Your task to perform on an android device: manage bookmarks in the chrome app Image 0: 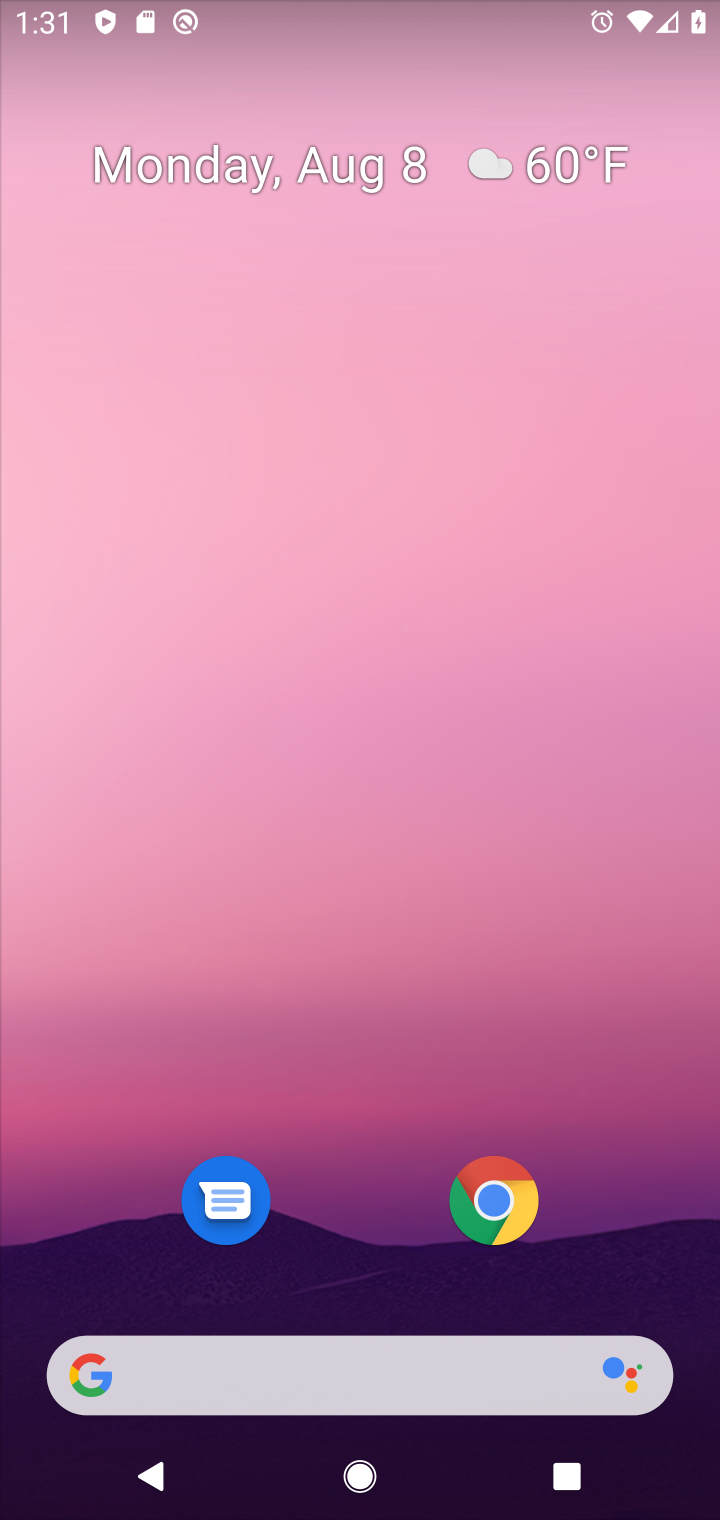
Step 0: press home button
Your task to perform on an android device: manage bookmarks in the chrome app Image 1: 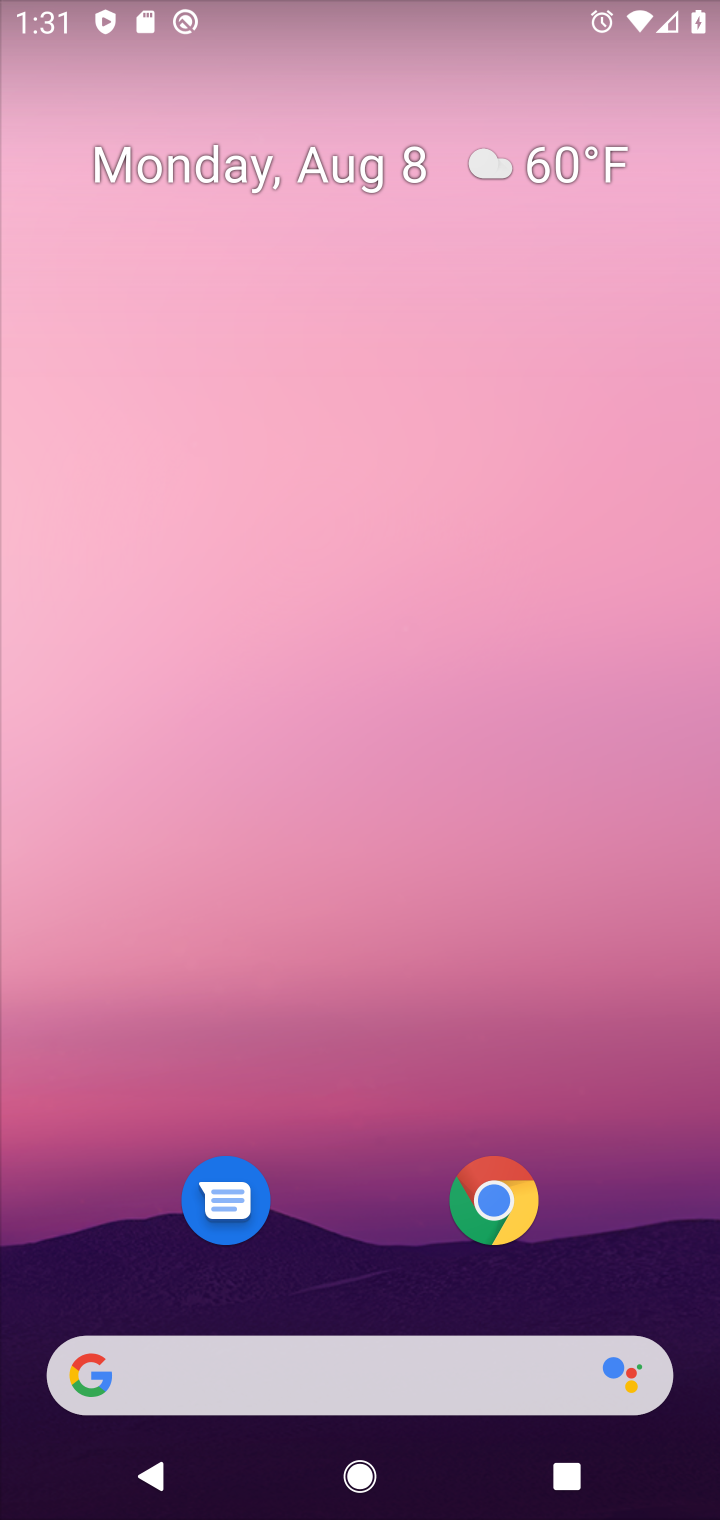
Step 1: click (499, 1192)
Your task to perform on an android device: manage bookmarks in the chrome app Image 2: 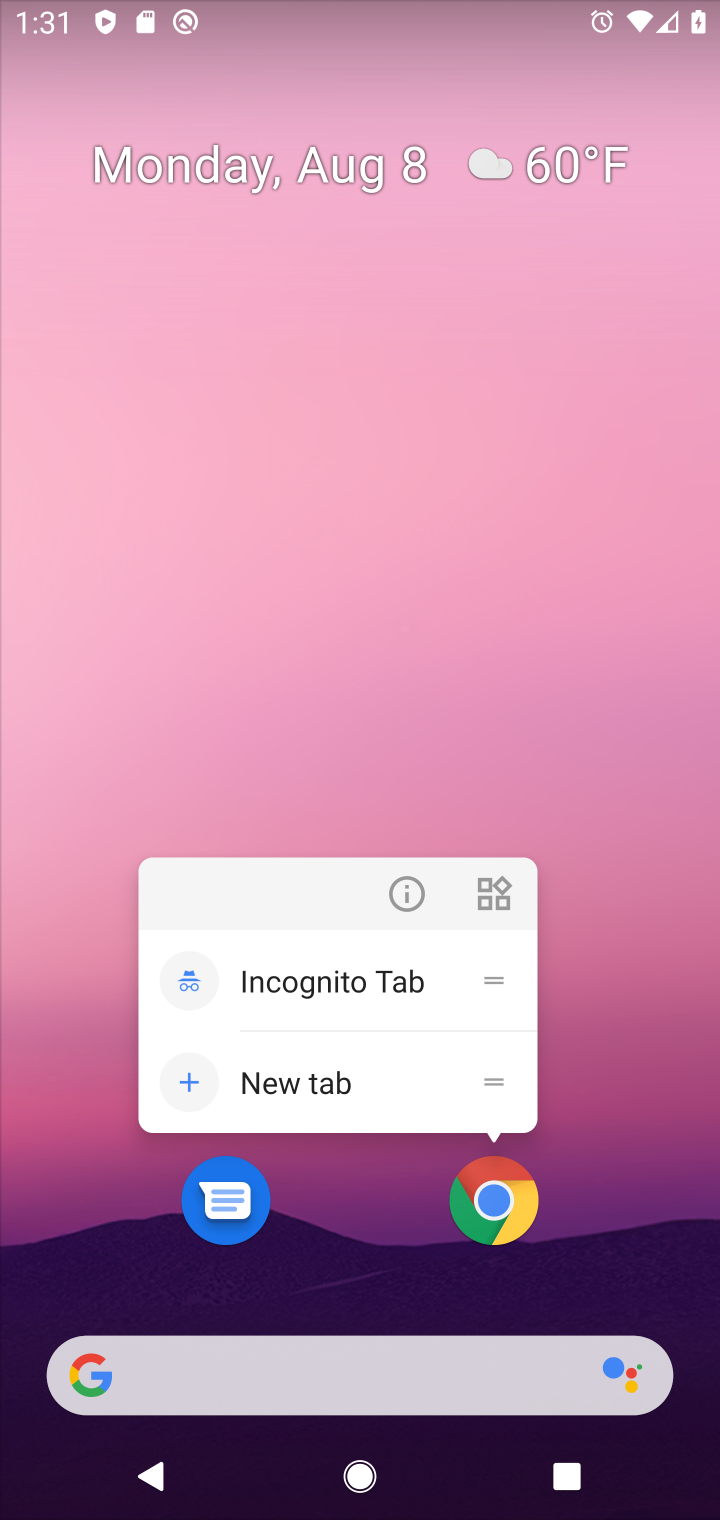
Step 2: click (506, 1181)
Your task to perform on an android device: manage bookmarks in the chrome app Image 3: 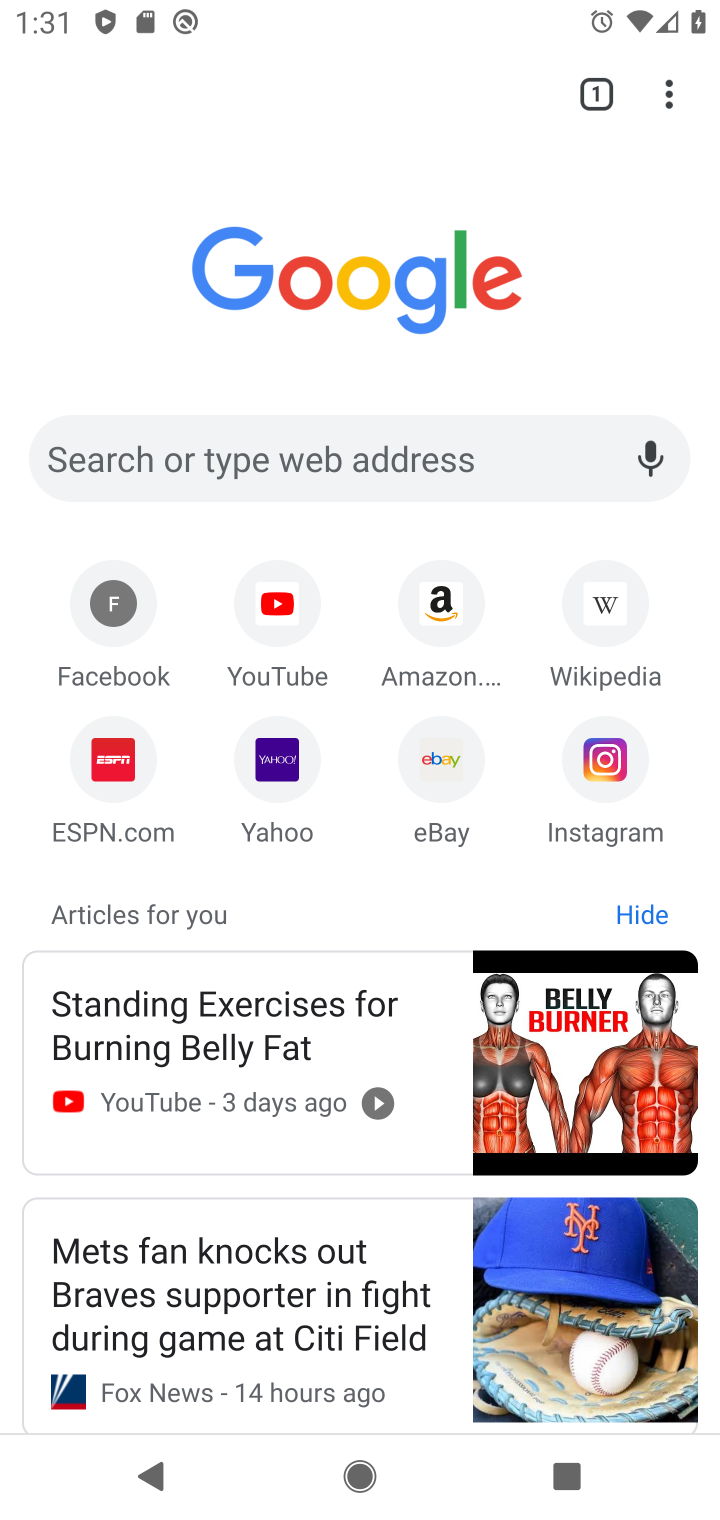
Step 3: click (669, 101)
Your task to perform on an android device: manage bookmarks in the chrome app Image 4: 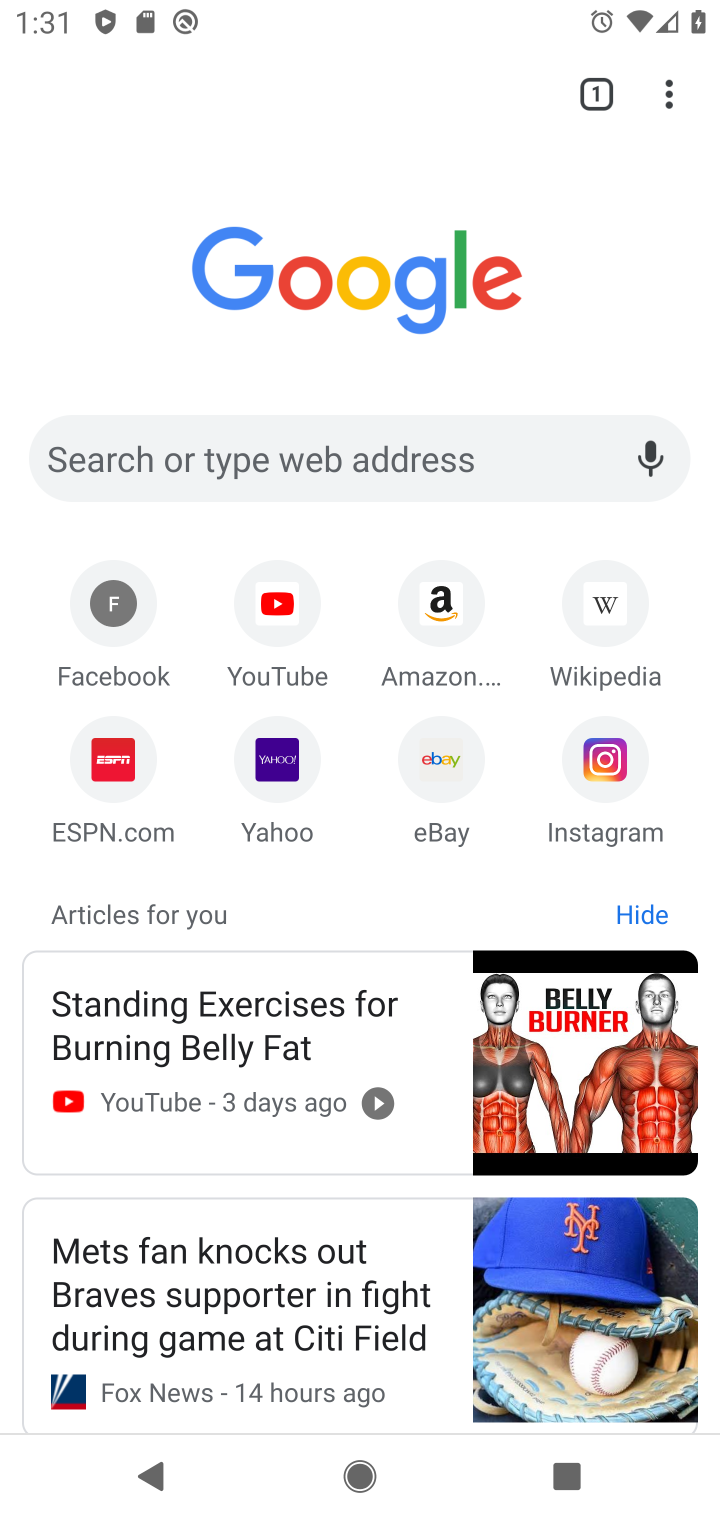
Step 4: click (672, 89)
Your task to perform on an android device: manage bookmarks in the chrome app Image 5: 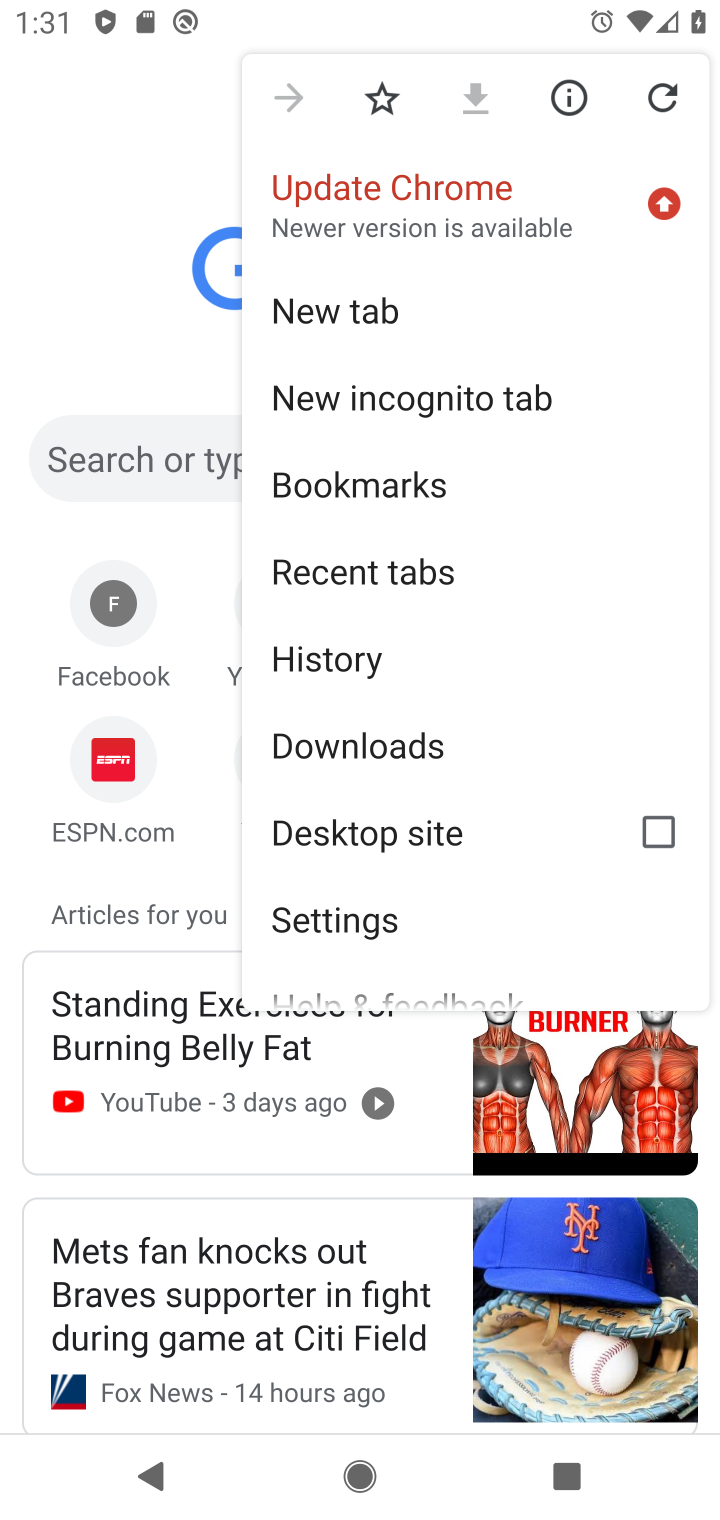
Step 5: click (457, 479)
Your task to perform on an android device: manage bookmarks in the chrome app Image 6: 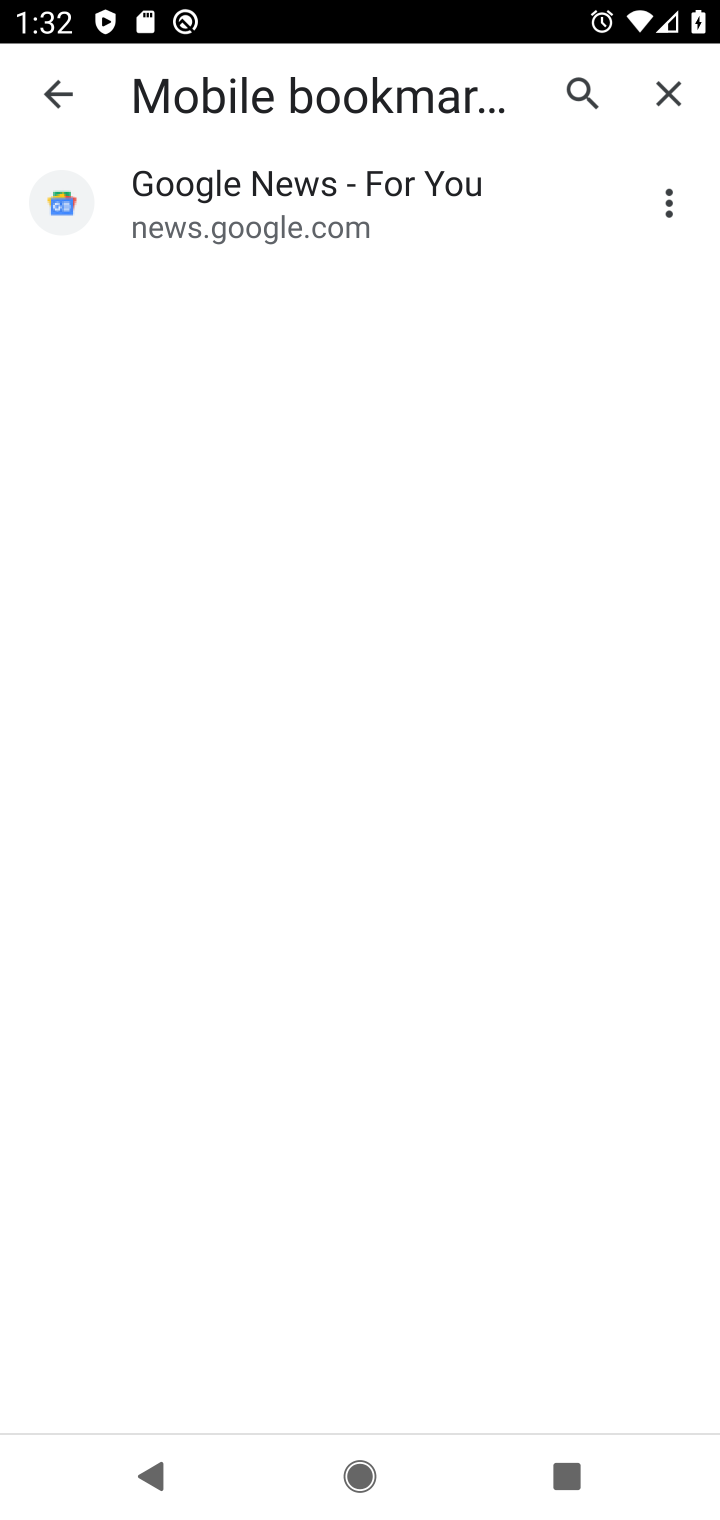
Step 6: click (671, 193)
Your task to perform on an android device: manage bookmarks in the chrome app Image 7: 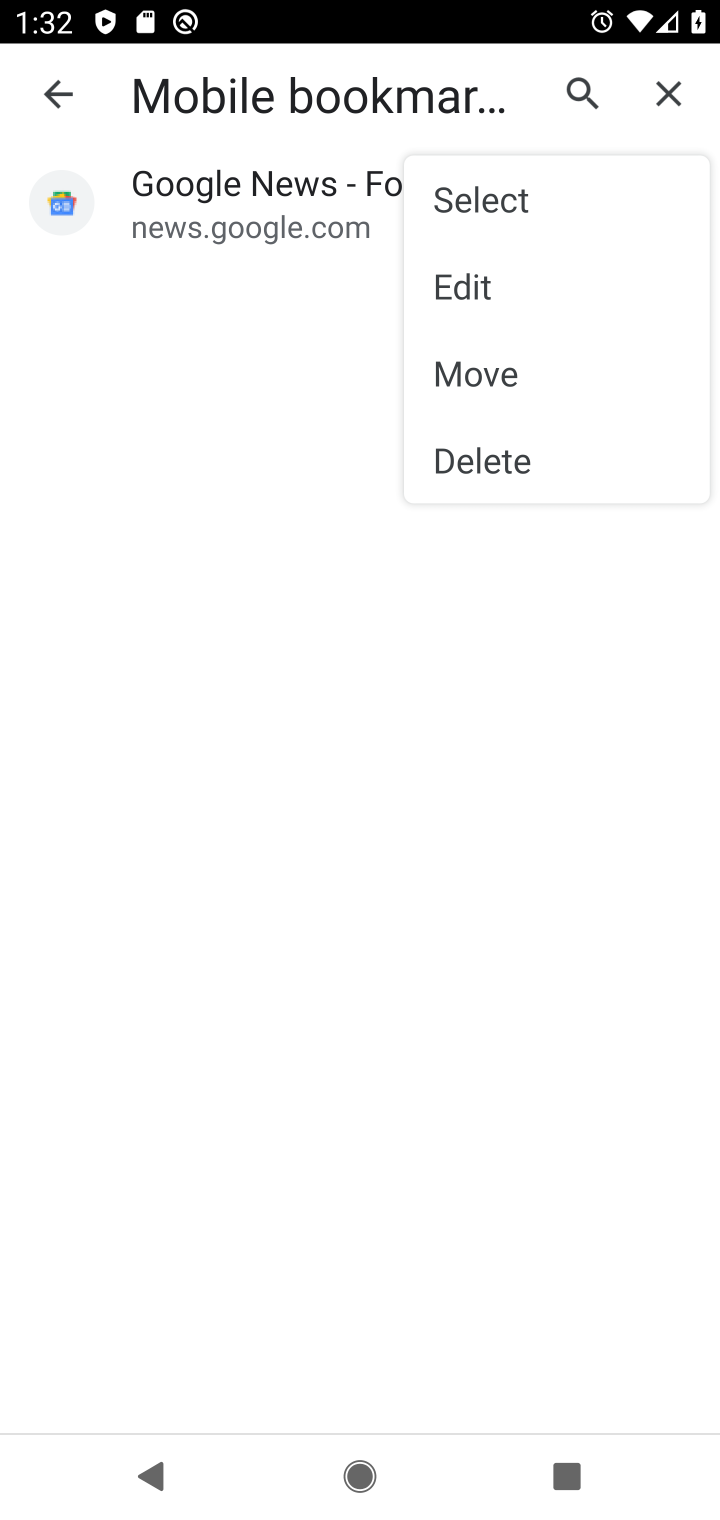
Step 7: click (566, 476)
Your task to perform on an android device: manage bookmarks in the chrome app Image 8: 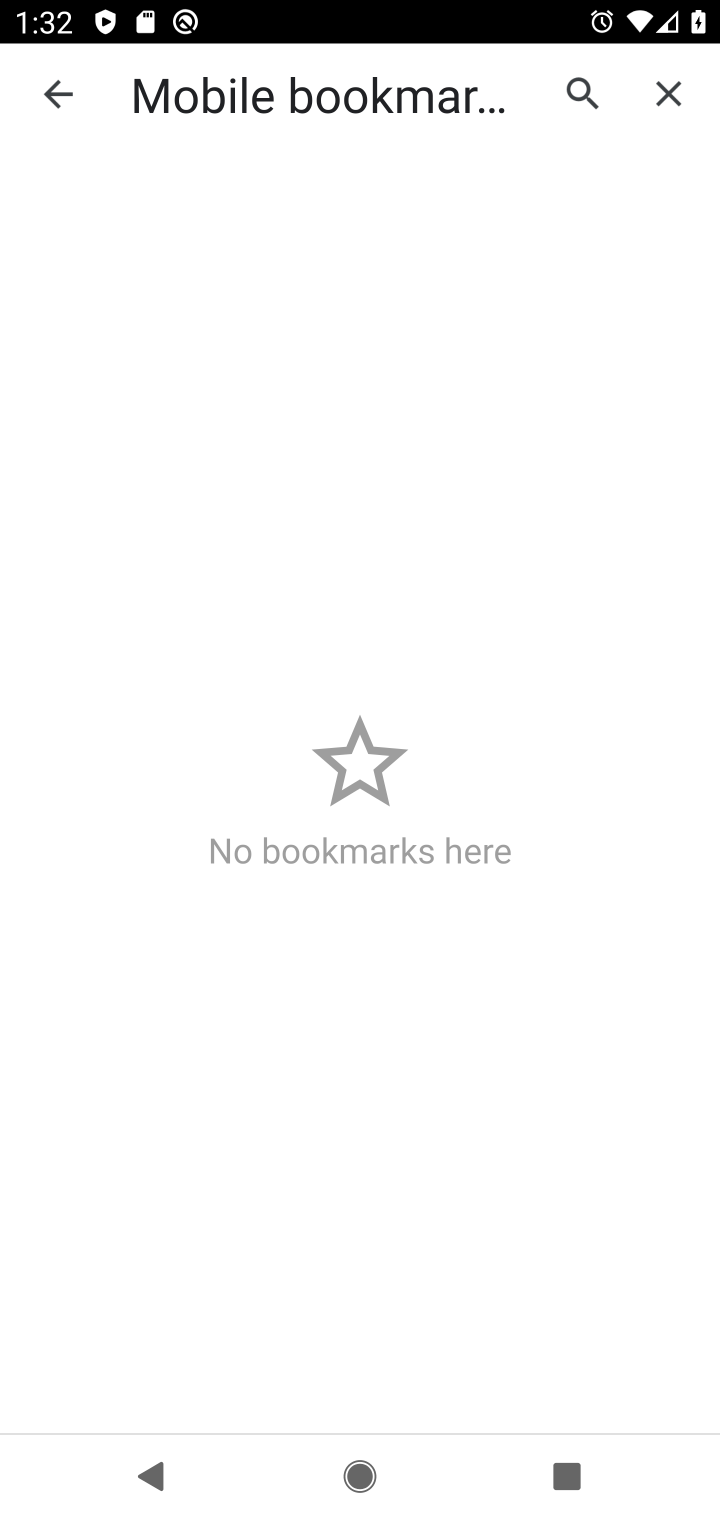
Step 8: task complete